Your task to perform on an android device: toggle priority inbox in the gmail app Image 0: 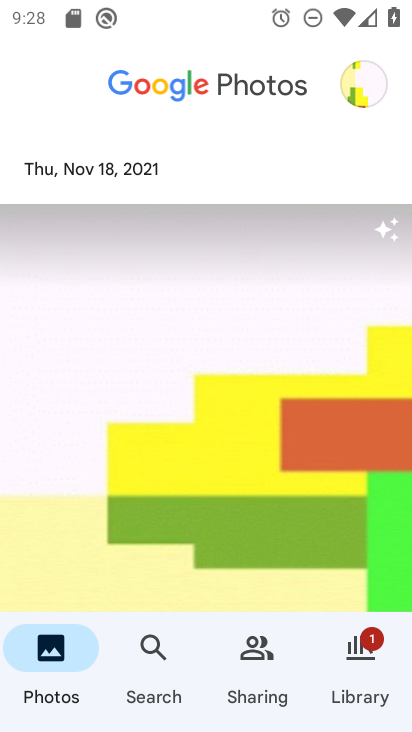
Step 0: press home button
Your task to perform on an android device: toggle priority inbox in the gmail app Image 1: 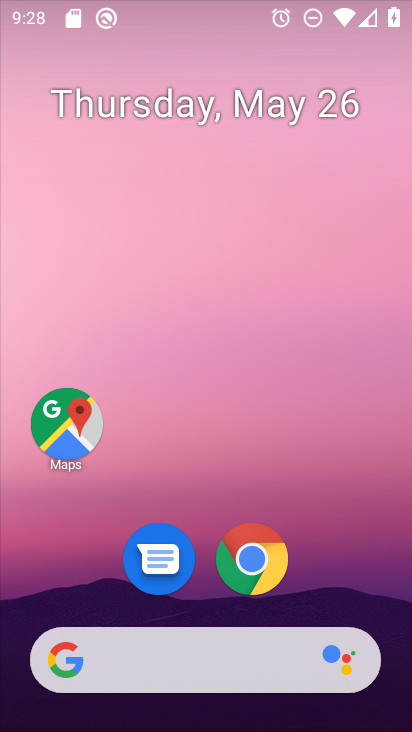
Step 1: drag from (332, 586) to (353, 98)
Your task to perform on an android device: toggle priority inbox in the gmail app Image 2: 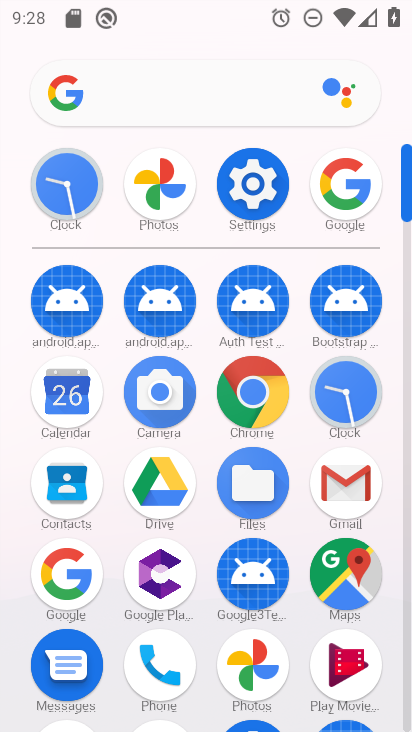
Step 2: click (348, 487)
Your task to perform on an android device: toggle priority inbox in the gmail app Image 3: 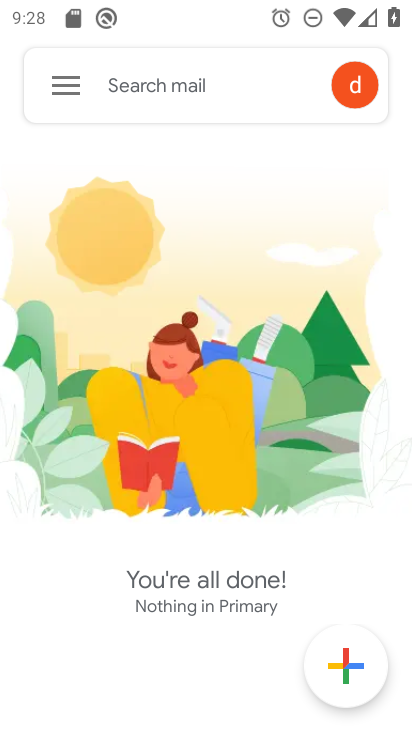
Step 3: click (60, 85)
Your task to perform on an android device: toggle priority inbox in the gmail app Image 4: 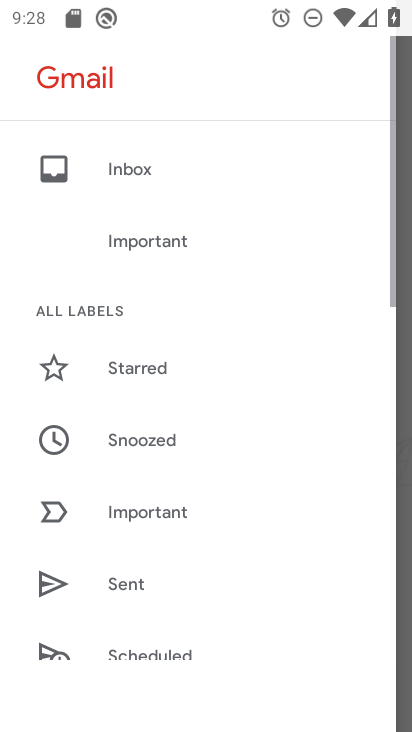
Step 4: drag from (172, 617) to (193, 120)
Your task to perform on an android device: toggle priority inbox in the gmail app Image 5: 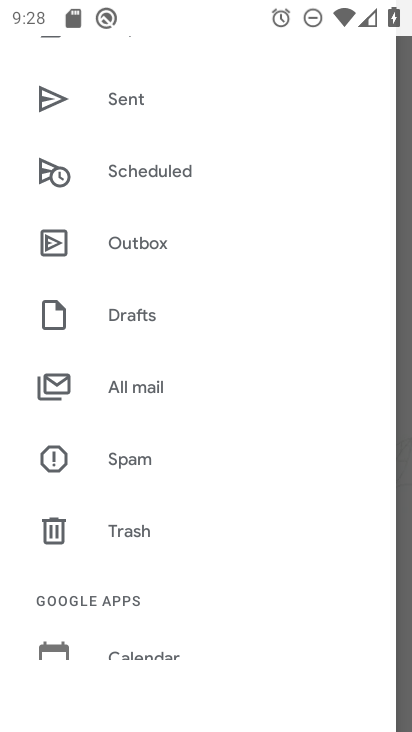
Step 5: drag from (219, 584) to (223, 328)
Your task to perform on an android device: toggle priority inbox in the gmail app Image 6: 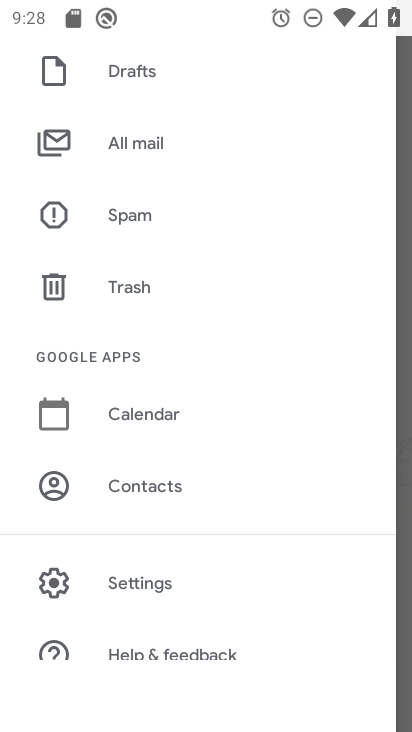
Step 6: click (117, 581)
Your task to perform on an android device: toggle priority inbox in the gmail app Image 7: 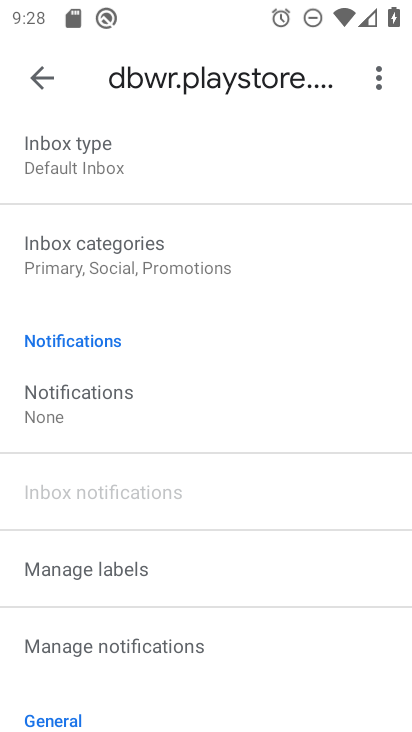
Step 7: drag from (204, 276) to (280, 79)
Your task to perform on an android device: toggle priority inbox in the gmail app Image 8: 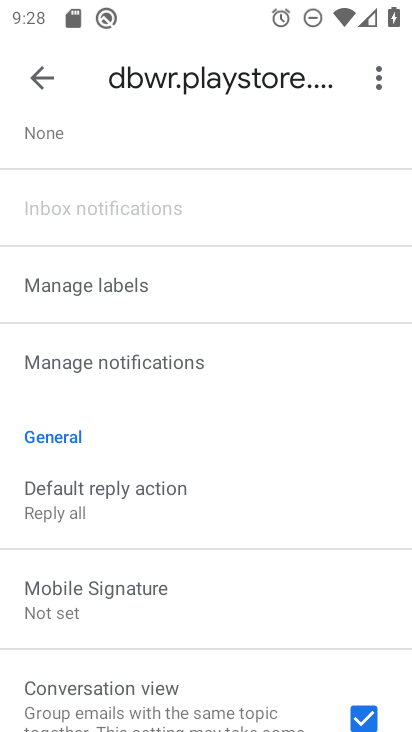
Step 8: drag from (196, 645) to (242, 591)
Your task to perform on an android device: toggle priority inbox in the gmail app Image 9: 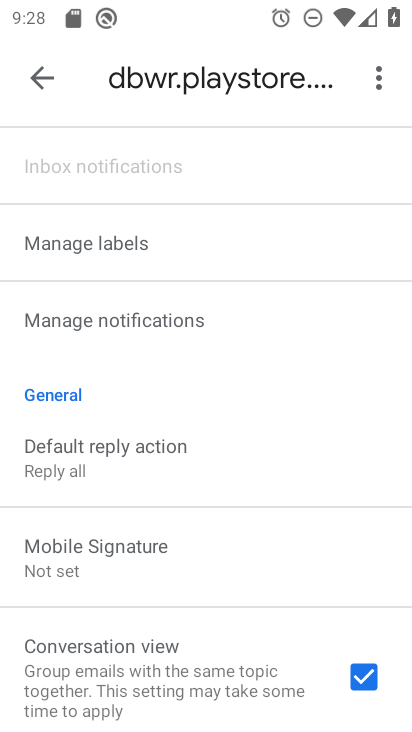
Step 9: drag from (108, 214) to (211, 645)
Your task to perform on an android device: toggle priority inbox in the gmail app Image 10: 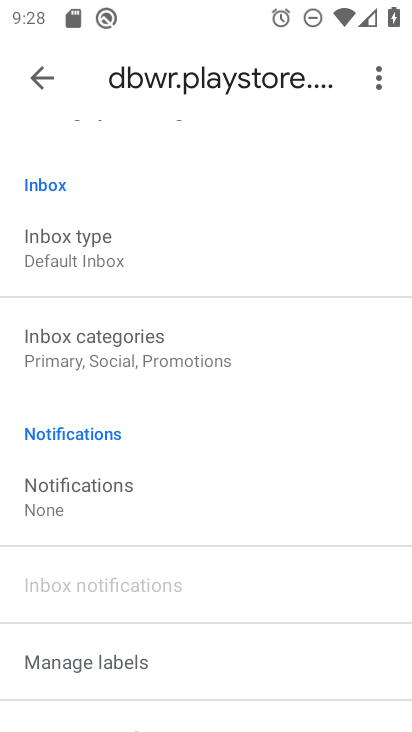
Step 10: click (65, 228)
Your task to perform on an android device: toggle priority inbox in the gmail app Image 11: 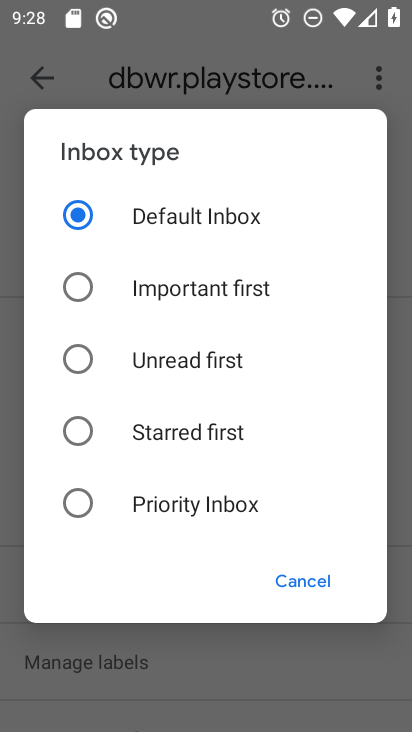
Step 11: click (78, 508)
Your task to perform on an android device: toggle priority inbox in the gmail app Image 12: 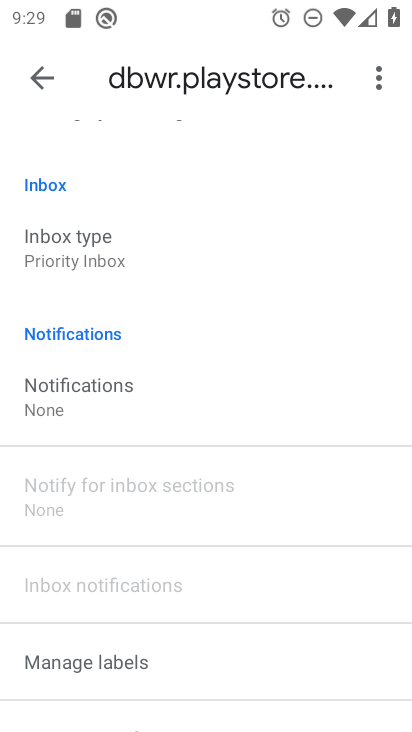
Step 12: task complete